Your task to perform on an android device: Open calendar and show me the second week of next month Image 0: 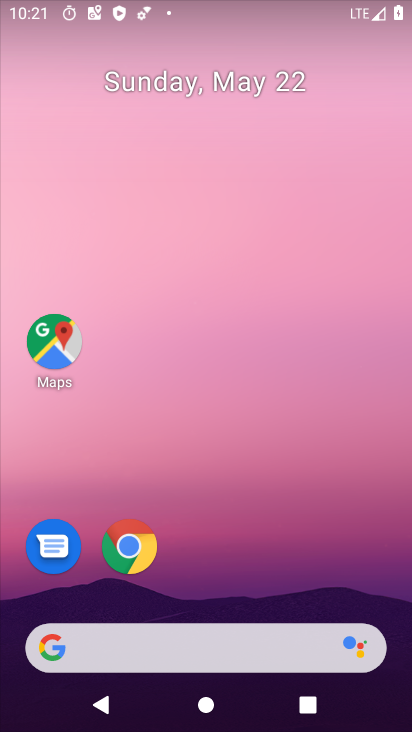
Step 0: drag from (281, 48) to (268, 10)
Your task to perform on an android device: Open calendar and show me the second week of next month Image 1: 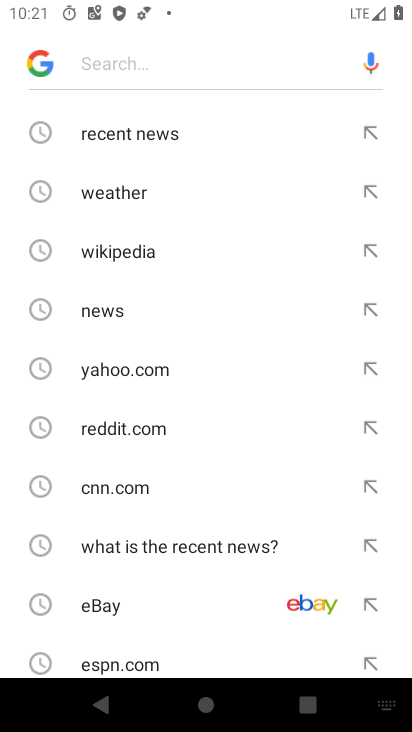
Step 1: press home button
Your task to perform on an android device: Open calendar and show me the second week of next month Image 2: 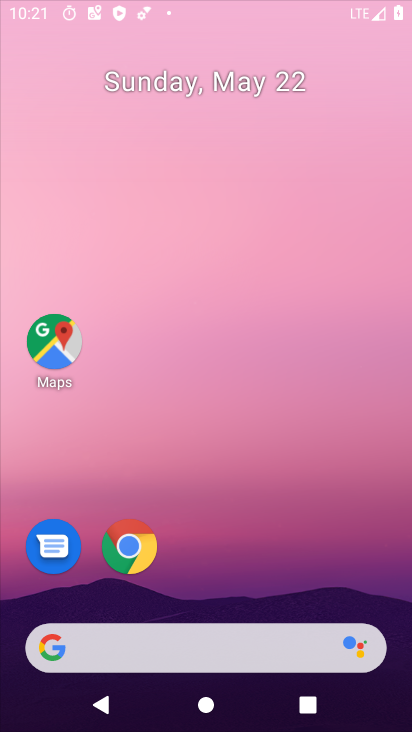
Step 2: drag from (187, 585) to (282, 7)
Your task to perform on an android device: Open calendar and show me the second week of next month Image 3: 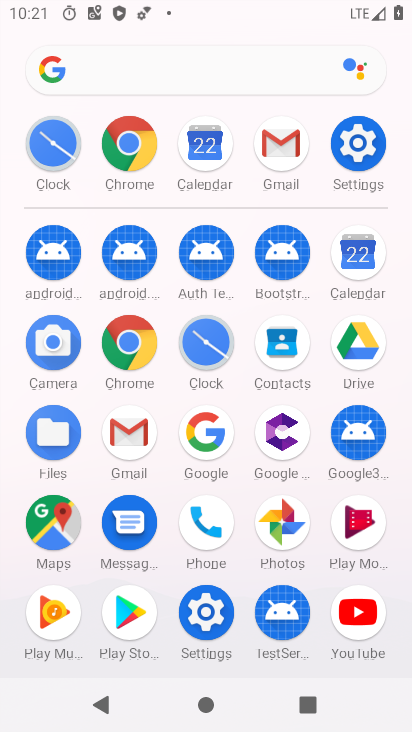
Step 3: click (351, 253)
Your task to perform on an android device: Open calendar and show me the second week of next month Image 4: 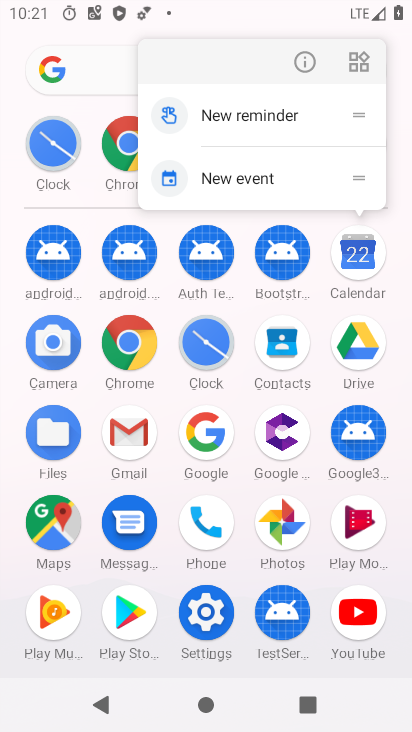
Step 4: click (279, 26)
Your task to perform on an android device: Open calendar and show me the second week of next month Image 5: 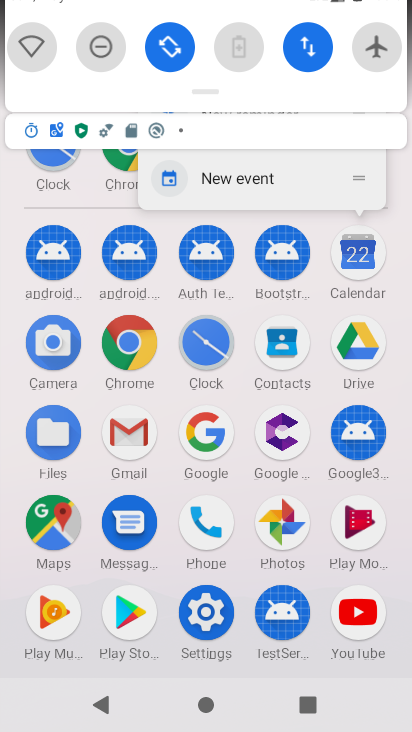
Step 5: click (297, 53)
Your task to perform on an android device: Open calendar and show me the second week of next month Image 6: 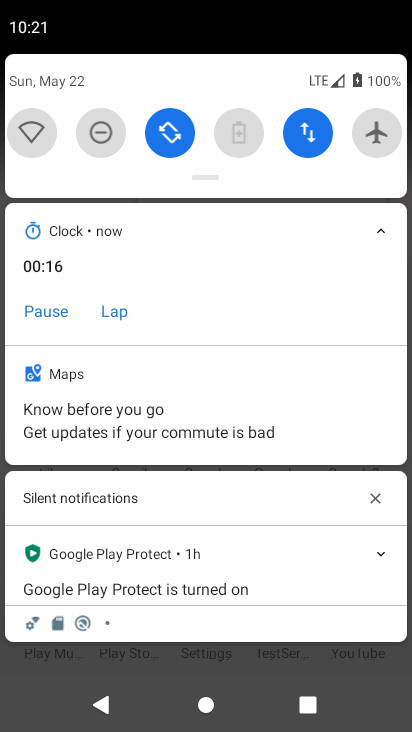
Step 6: press back button
Your task to perform on an android device: Open calendar and show me the second week of next month Image 7: 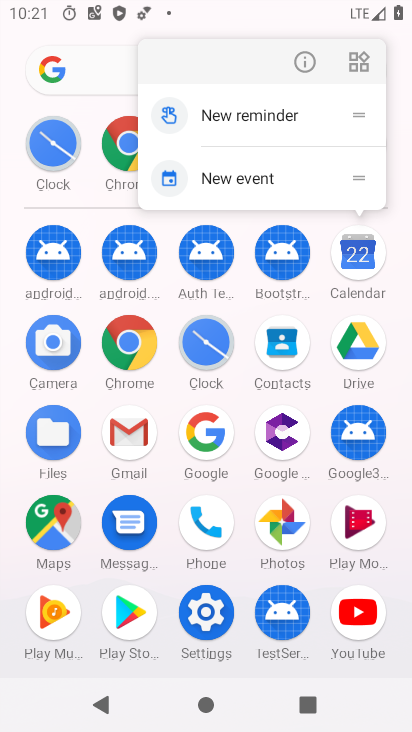
Step 7: click (303, 64)
Your task to perform on an android device: Open calendar and show me the second week of next month Image 8: 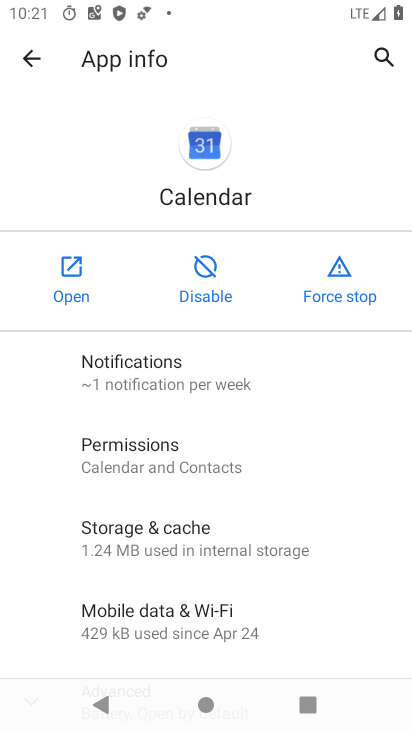
Step 8: click (61, 282)
Your task to perform on an android device: Open calendar and show me the second week of next month Image 9: 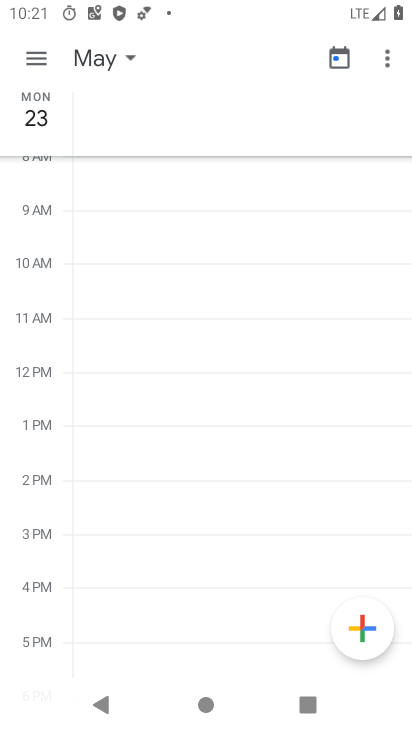
Step 9: drag from (285, 552) to (293, 247)
Your task to perform on an android device: Open calendar and show me the second week of next month Image 10: 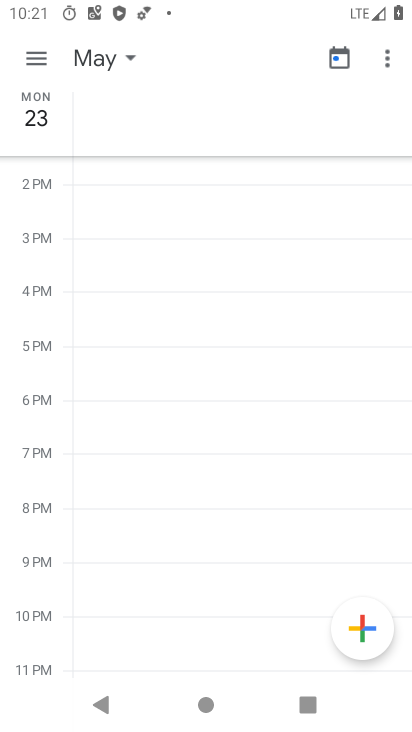
Step 10: click (93, 48)
Your task to perform on an android device: Open calendar and show me the second week of next month Image 11: 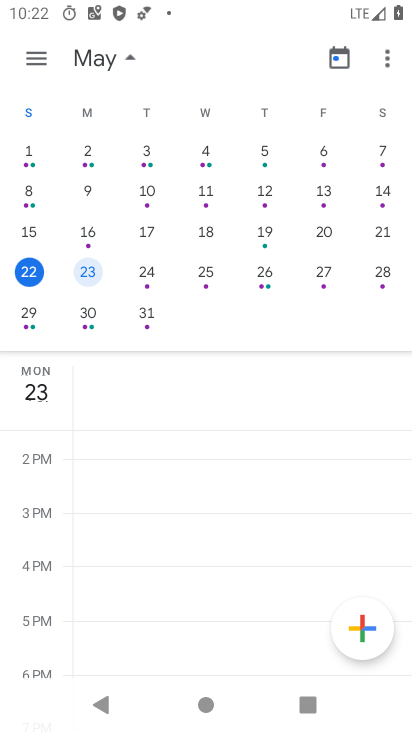
Step 11: click (149, 51)
Your task to perform on an android device: Open calendar and show me the second week of next month Image 12: 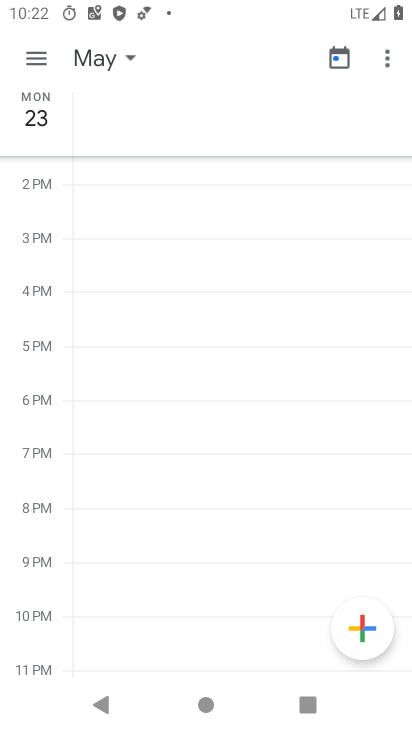
Step 12: click (110, 52)
Your task to perform on an android device: Open calendar and show me the second week of next month Image 13: 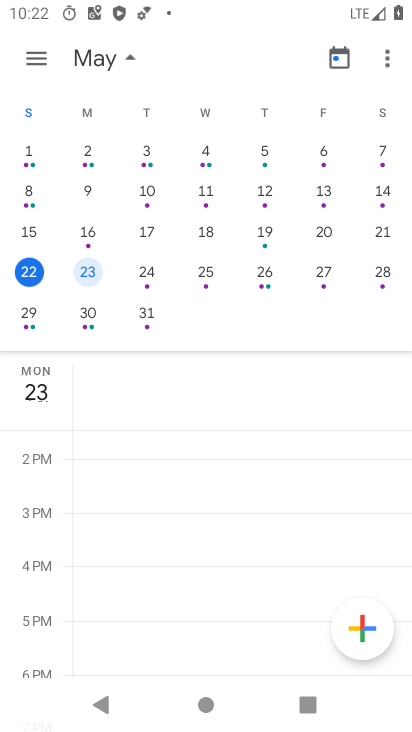
Step 13: click (33, 56)
Your task to perform on an android device: Open calendar and show me the second week of next month Image 14: 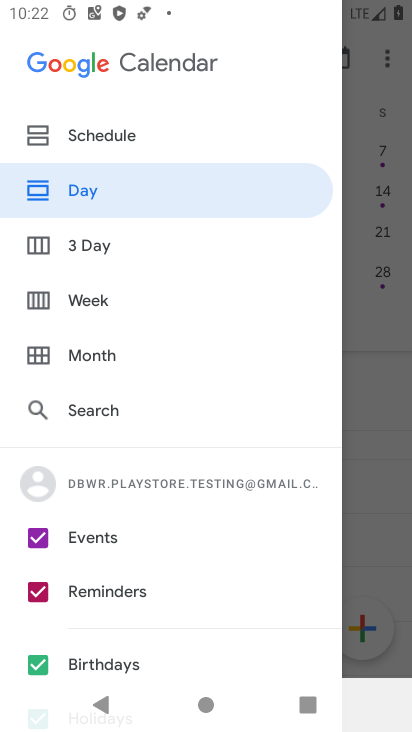
Step 14: click (359, 244)
Your task to perform on an android device: Open calendar and show me the second week of next month Image 15: 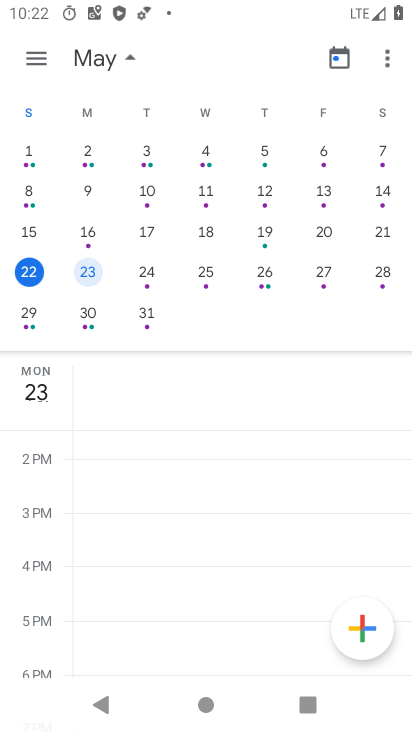
Step 15: drag from (271, 255) to (0, 272)
Your task to perform on an android device: Open calendar and show me the second week of next month Image 16: 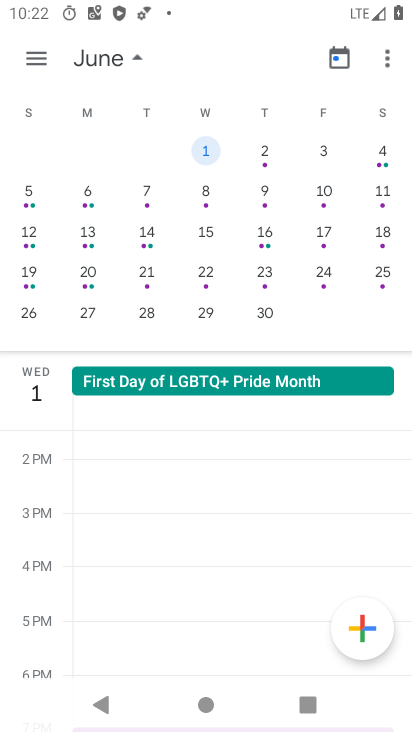
Step 16: click (258, 198)
Your task to perform on an android device: Open calendar and show me the second week of next month Image 17: 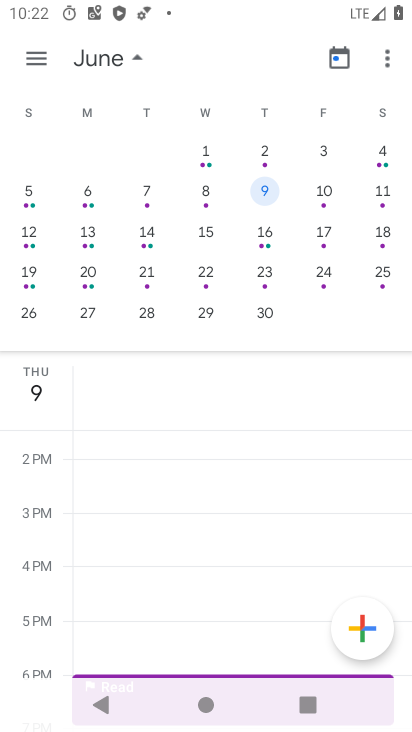
Step 17: task complete